Your task to perform on an android device: Turn off the flashlight Image 0: 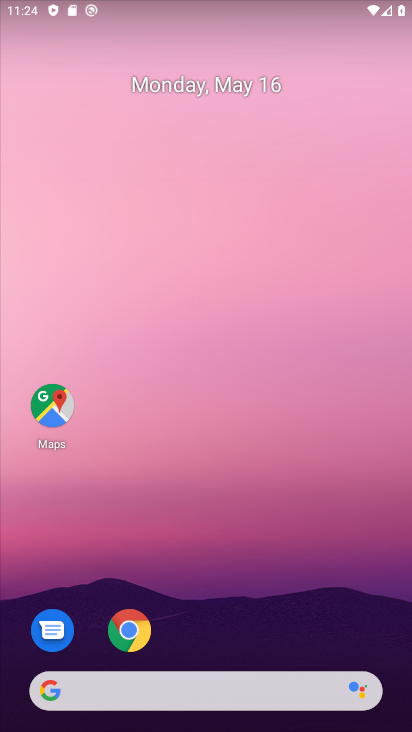
Step 0: drag from (344, 13) to (331, 538)
Your task to perform on an android device: Turn off the flashlight Image 1: 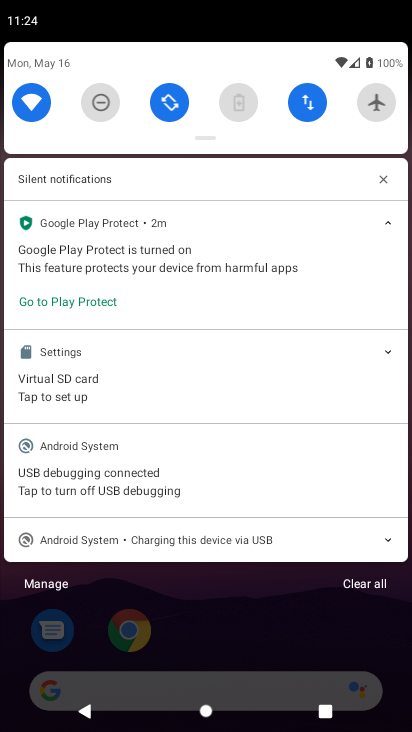
Step 1: task complete